Your task to perform on an android device: Clear all items from cart on walmart.com. Search for bose soundlink mini on walmart.com, select the first entry, and add it to the cart. Image 0: 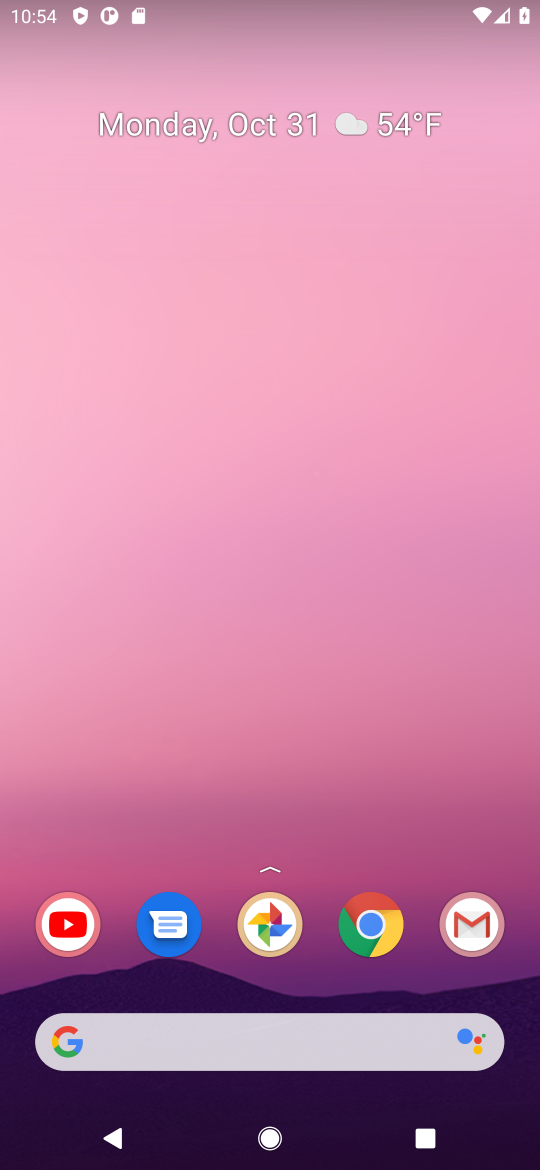
Step 0: press home button
Your task to perform on an android device: Clear all items from cart on walmart.com. Search for bose soundlink mini on walmart.com, select the first entry, and add it to the cart. Image 1: 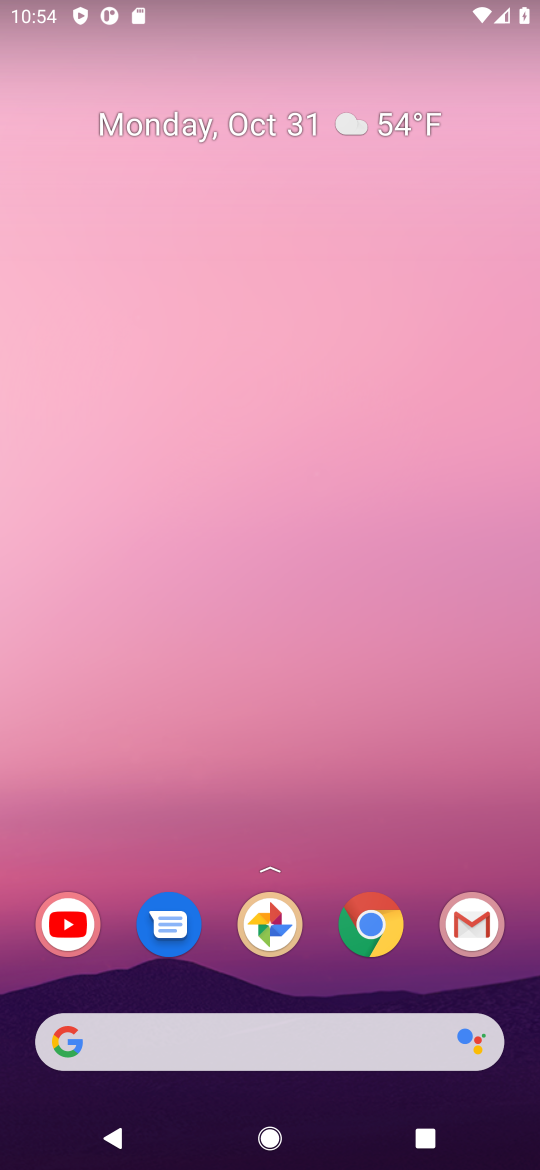
Step 1: click (379, 927)
Your task to perform on an android device: Clear all items from cart on walmart.com. Search for bose soundlink mini on walmart.com, select the first entry, and add it to the cart. Image 2: 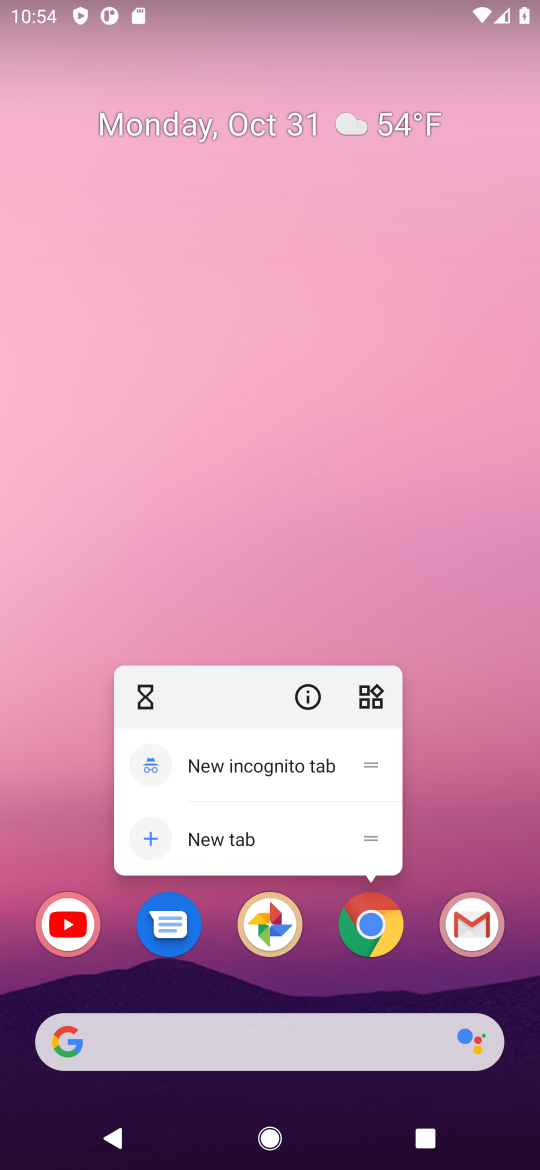
Step 2: click (224, 835)
Your task to perform on an android device: Clear all items from cart on walmart.com. Search for bose soundlink mini on walmart.com, select the first entry, and add it to the cart. Image 3: 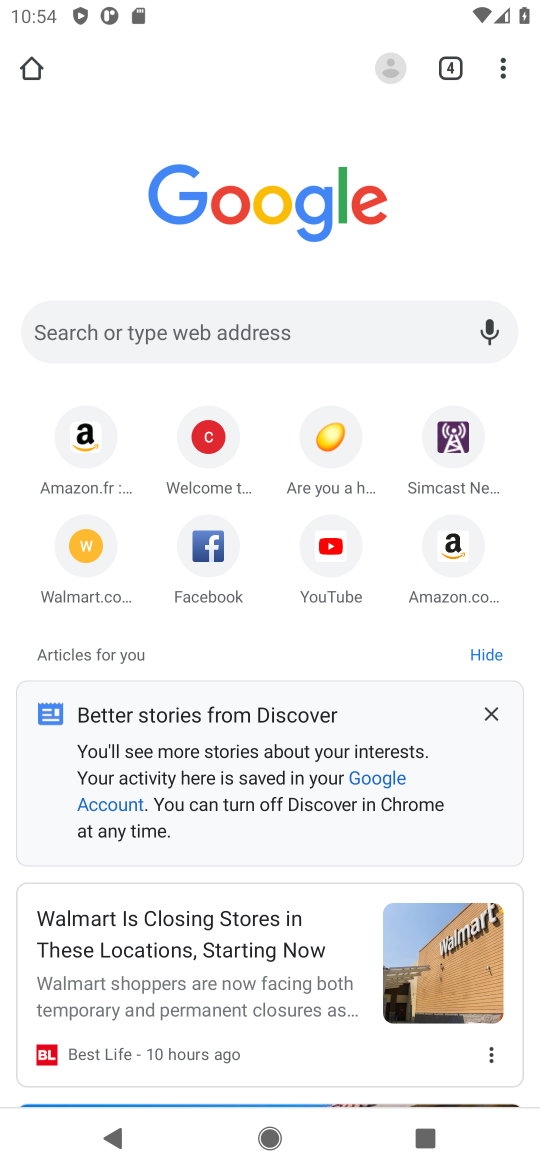
Step 3: click (260, 328)
Your task to perform on an android device: Clear all items from cart on walmart.com. Search for bose soundlink mini on walmart.com, select the first entry, and add it to the cart. Image 4: 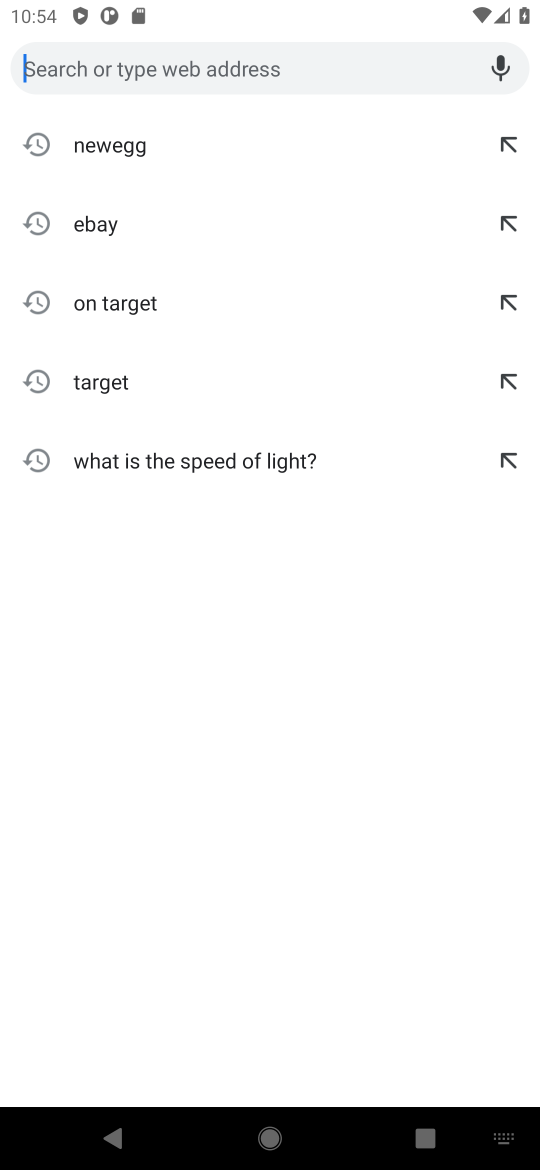
Step 4: type "walmart.com"
Your task to perform on an android device: Clear all items from cart on walmart.com. Search for bose soundlink mini on walmart.com, select the first entry, and add it to the cart. Image 5: 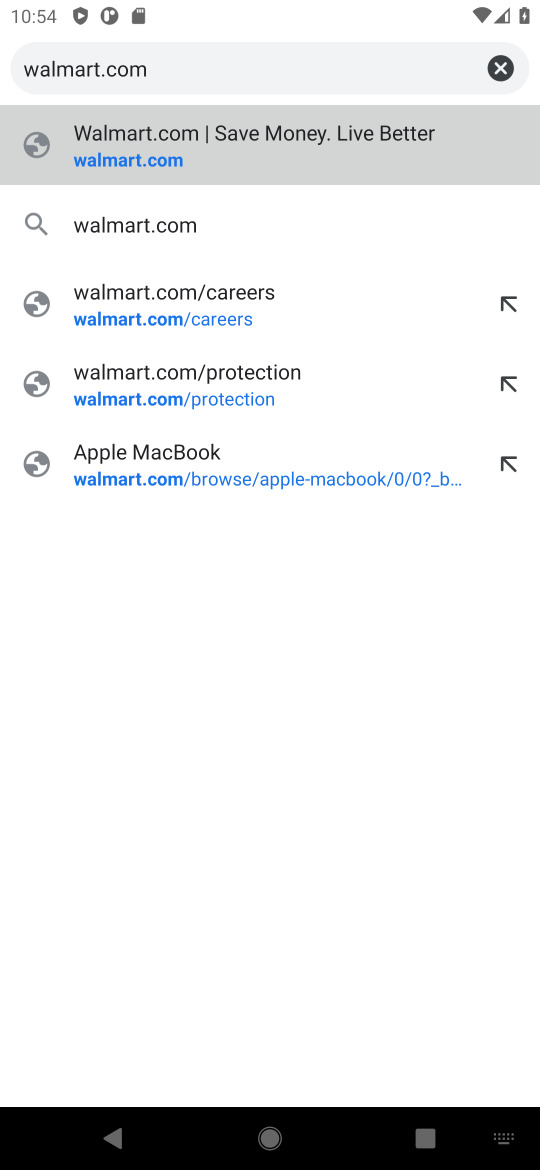
Step 5: type ""
Your task to perform on an android device: Clear all items from cart on walmart.com. Search for bose soundlink mini on walmart.com, select the first entry, and add it to the cart. Image 6: 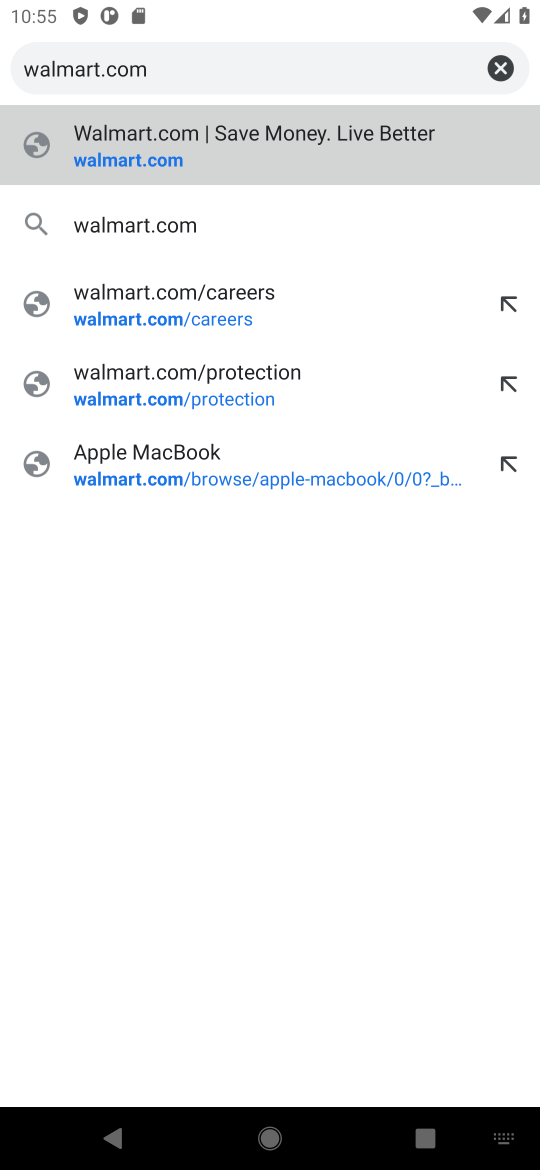
Step 6: click (193, 163)
Your task to perform on an android device: Clear all items from cart on walmart.com. Search for bose soundlink mini on walmart.com, select the first entry, and add it to the cart. Image 7: 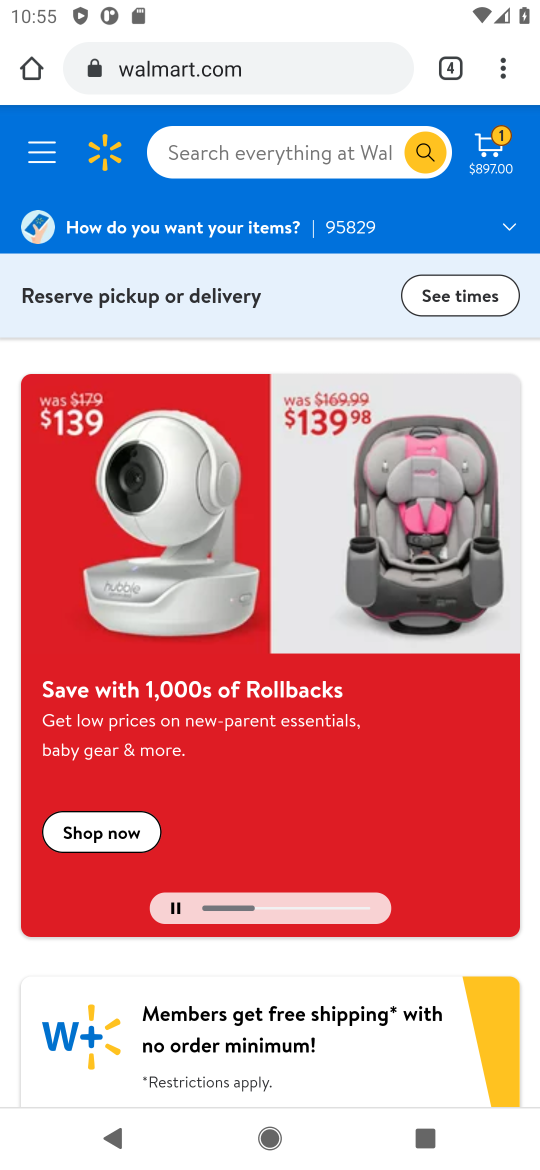
Step 7: click (235, 157)
Your task to perform on an android device: Clear all items from cart on walmart.com. Search for bose soundlink mini on walmart.com, select the first entry, and add it to the cart. Image 8: 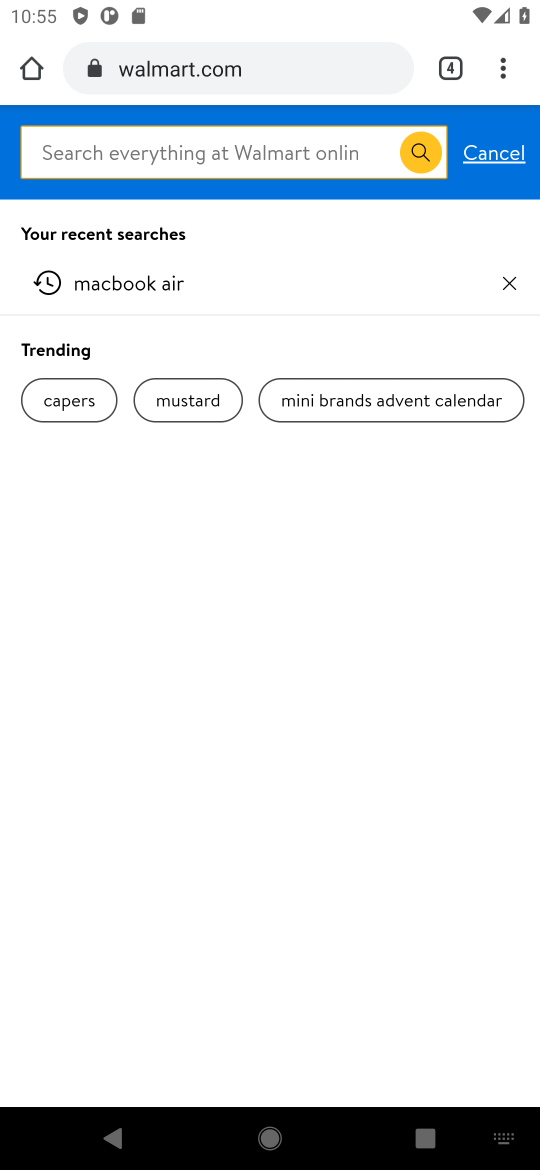
Step 8: type "bose soundlink mini"
Your task to perform on an android device: Clear all items from cart on walmart.com. Search for bose soundlink mini on walmart.com, select the first entry, and add it to the cart. Image 9: 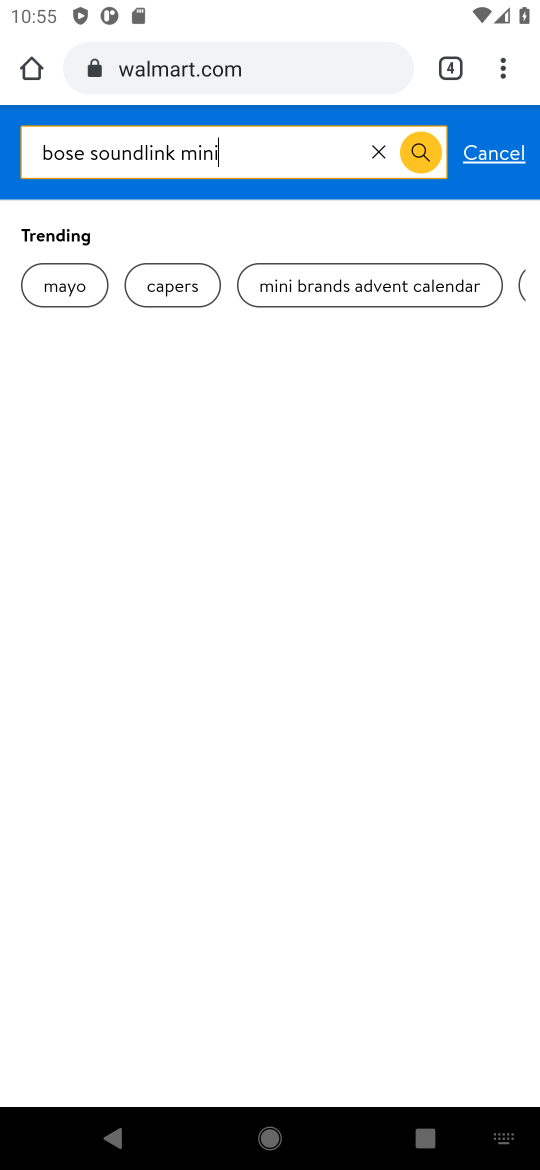
Step 9: type ""
Your task to perform on an android device: Clear all items from cart on walmart.com. Search for bose soundlink mini on walmart.com, select the first entry, and add it to the cart. Image 10: 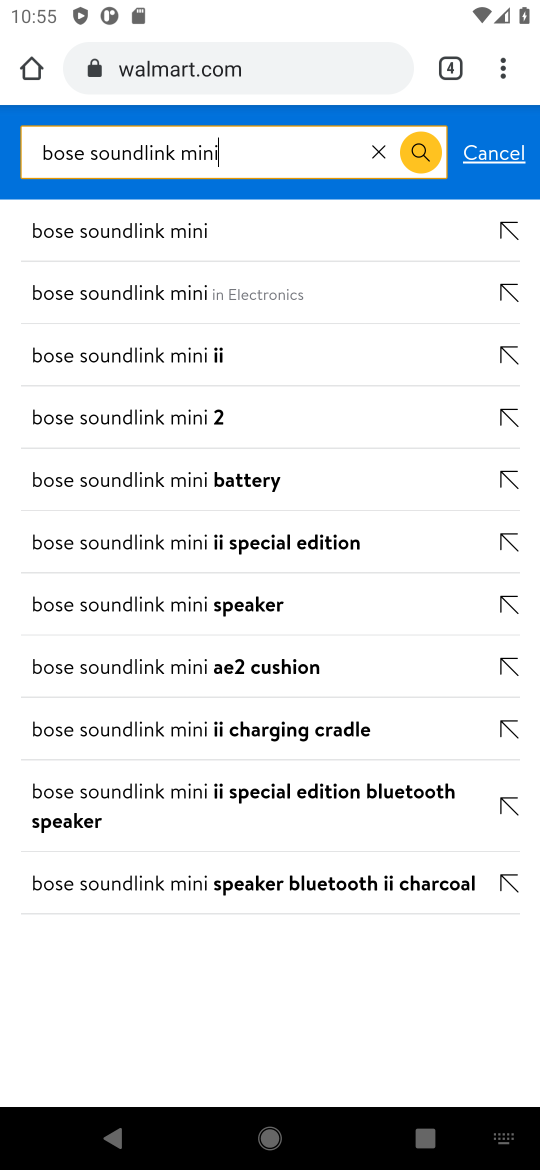
Step 10: click (157, 244)
Your task to perform on an android device: Clear all items from cart on walmart.com. Search for bose soundlink mini on walmart.com, select the first entry, and add it to the cart. Image 11: 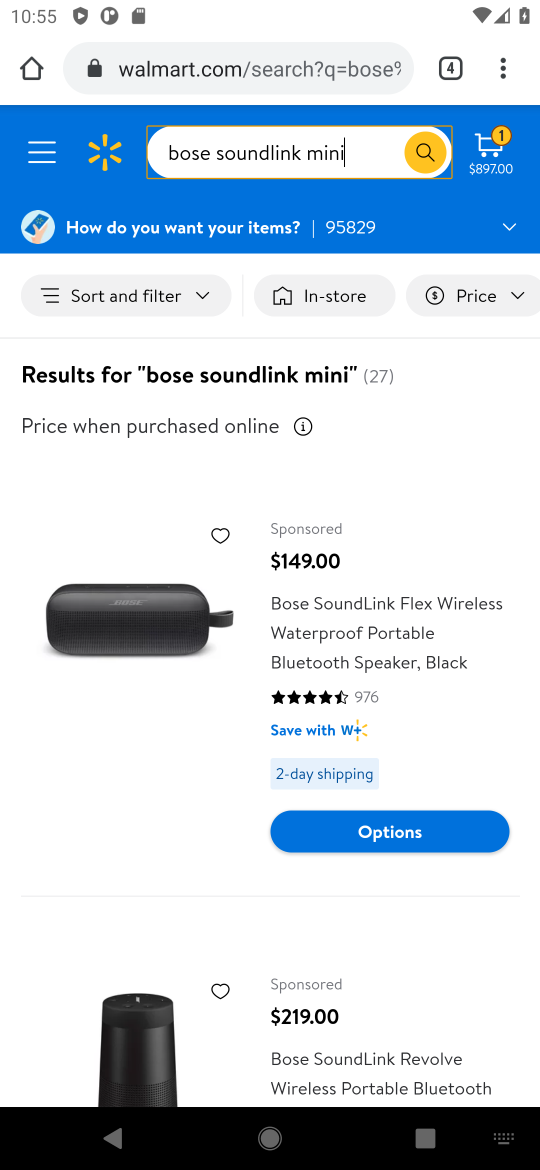
Step 11: click (160, 629)
Your task to perform on an android device: Clear all items from cart on walmart.com. Search for bose soundlink mini on walmart.com, select the first entry, and add it to the cart. Image 12: 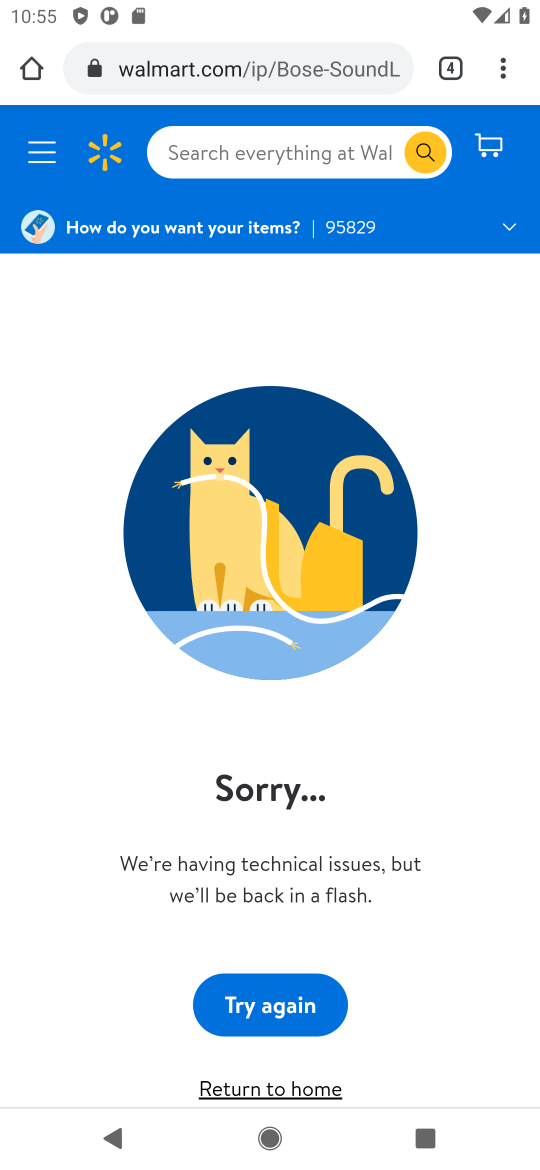
Step 12: press back button
Your task to perform on an android device: Clear all items from cart on walmart.com. Search for bose soundlink mini on walmart.com, select the first entry, and add it to the cart. Image 13: 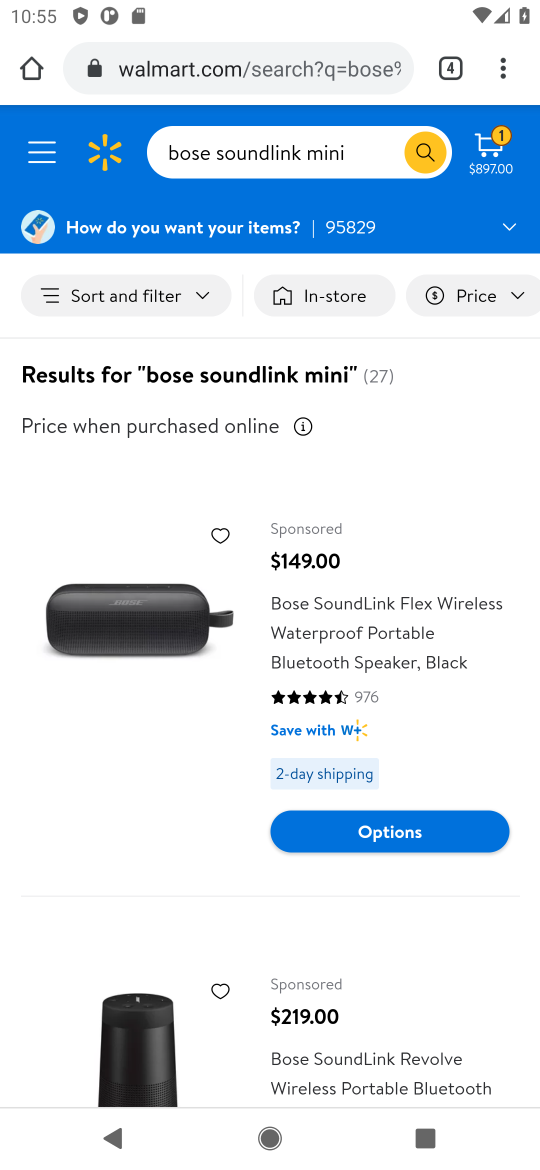
Step 13: drag from (198, 968) to (202, 546)
Your task to perform on an android device: Clear all items from cart on walmart.com. Search for bose soundlink mini on walmart.com, select the first entry, and add it to the cart. Image 14: 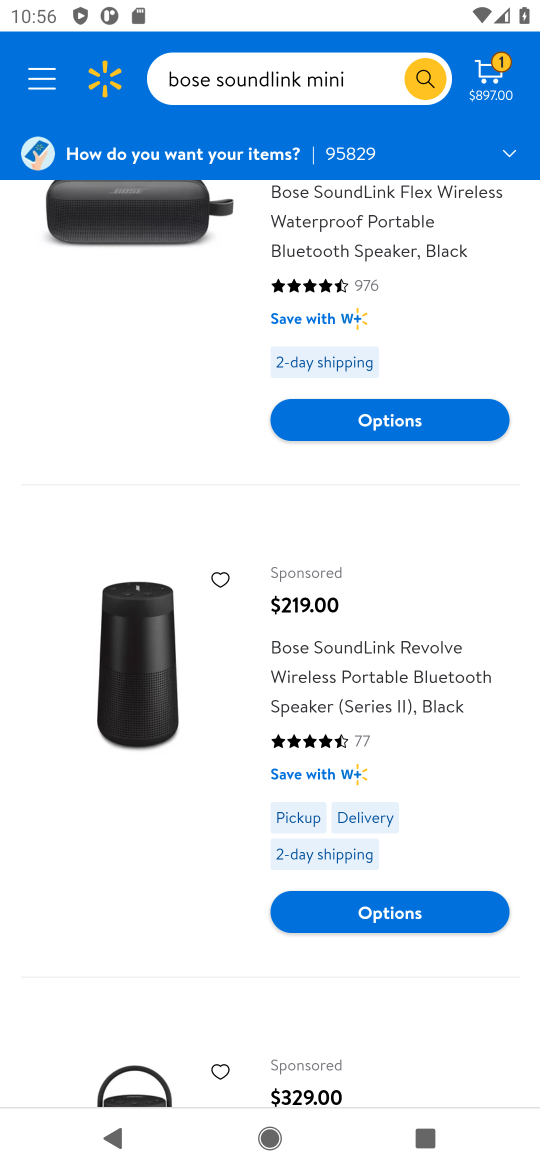
Step 14: click (130, 648)
Your task to perform on an android device: Clear all items from cart on walmart.com. Search for bose soundlink mini on walmart.com, select the first entry, and add it to the cart. Image 15: 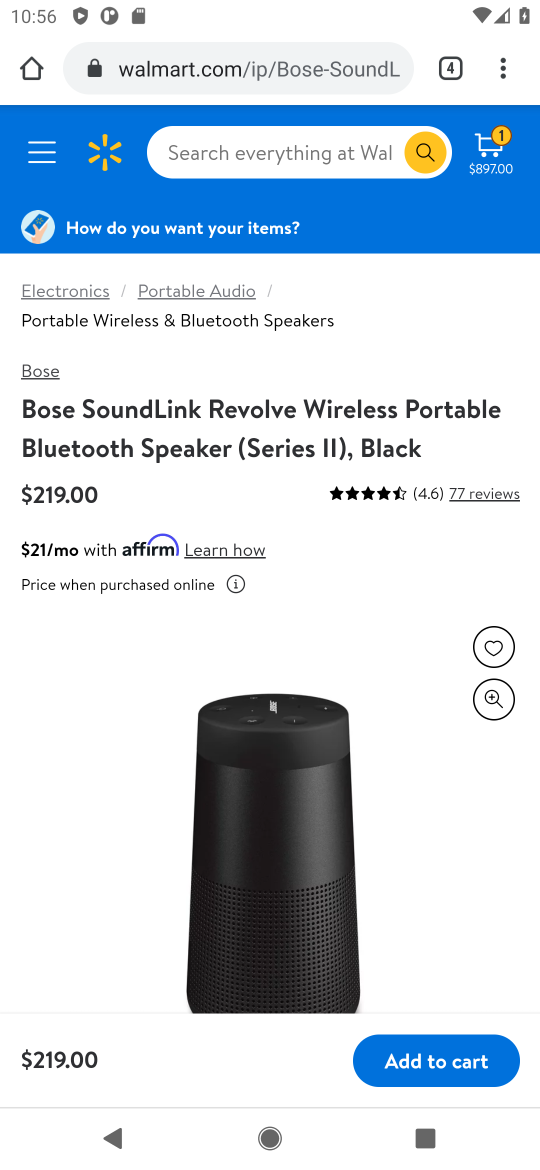
Step 15: drag from (472, 1075) to (423, 1126)
Your task to perform on an android device: Clear all items from cart on walmart.com. Search for bose soundlink mini on walmart.com, select the first entry, and add it to the cart. Image 16: 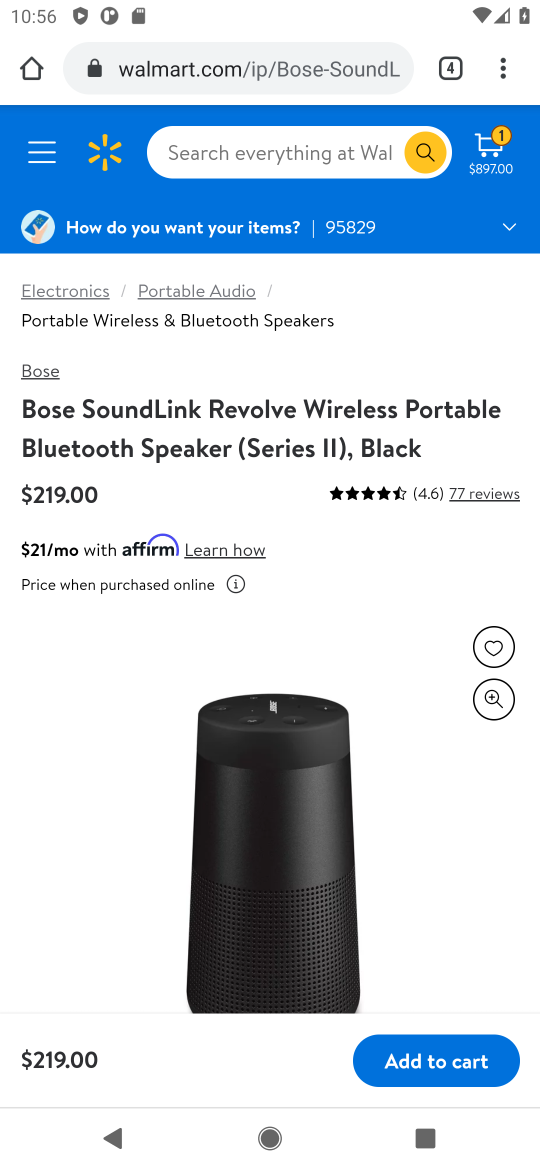
Step 16: click (454, 1067)
Your task to perform on an android device: Clear all items from cart on walmart.com. Search for bose soundlink mini on walmart.com, select the first entry, and add it to the cart. Image 17: 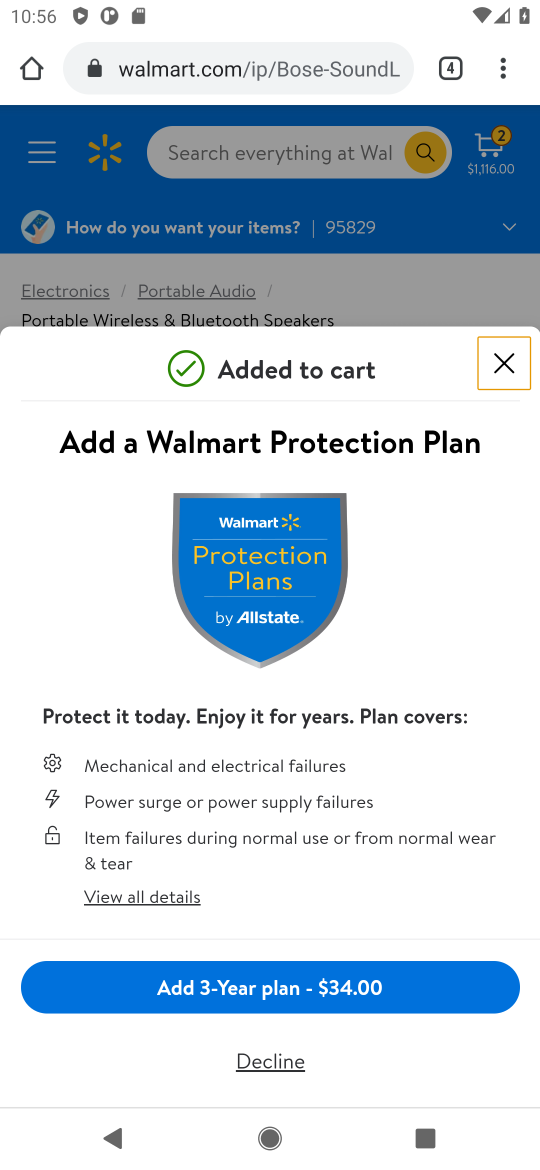
Step 17: click (501, 354)
Your task to perform on an android device: Clear all items from cart on walmart.com. Search for bose soundlink mini on walmart.com, select the first entry, and add it to the cart. Image 18: 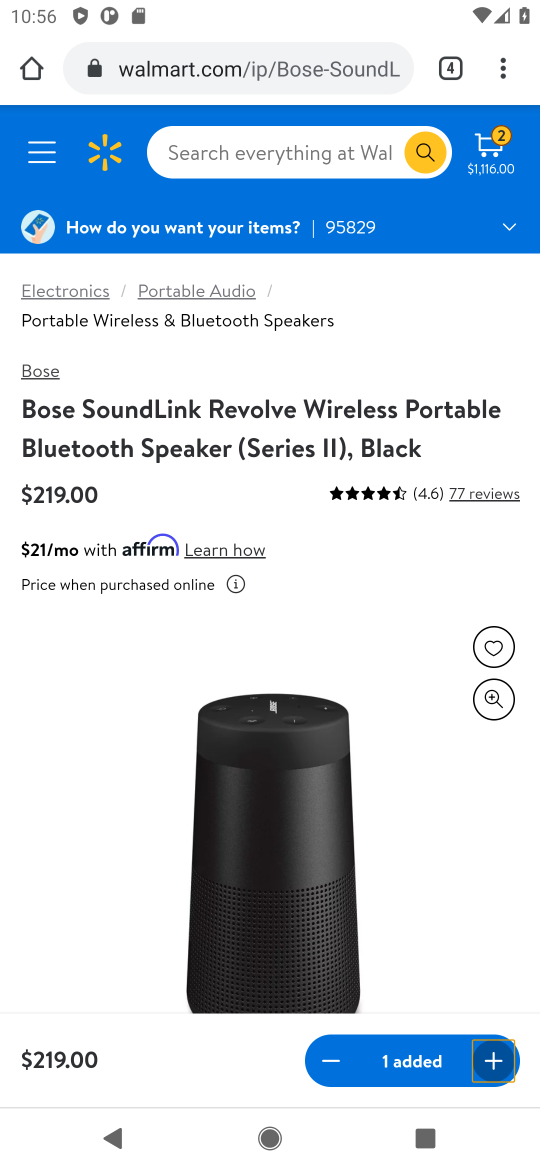
Step 18: click (487, 147)
Your task to perform on an android device: Clear all items from cart on walmart.com. Search for bose soundlink mini on walmart.com, select the first entry, and add it to the cart. Image 19: 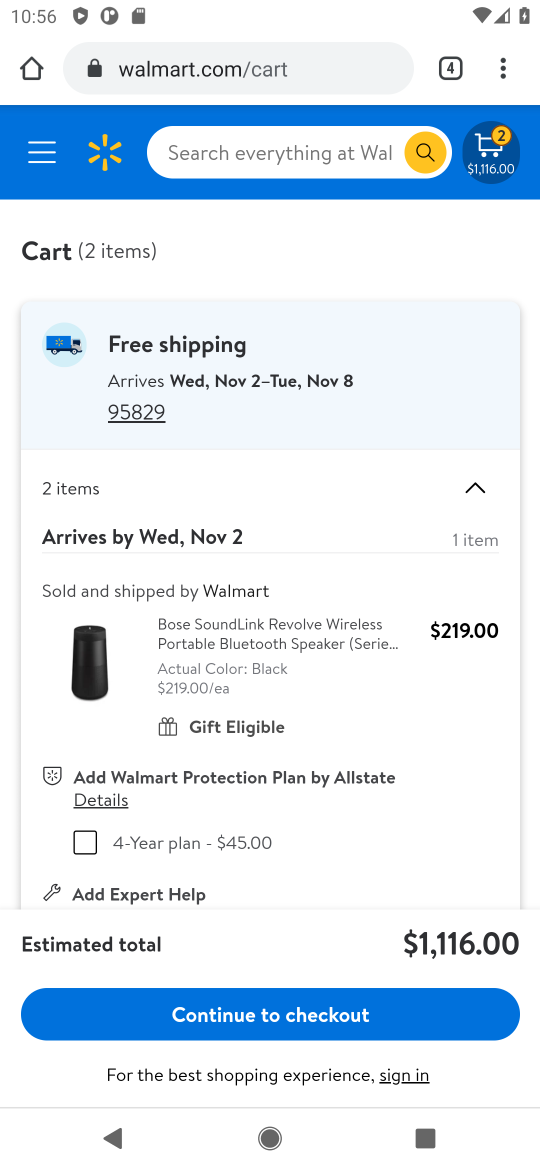
Step 19: click (287, 1011)
Your task to perform on an android device: Clear all items from cart on walmart.com. Search for bose soundlink mini on walmart.com, select the first entry, and add it to the cart. Image 20: 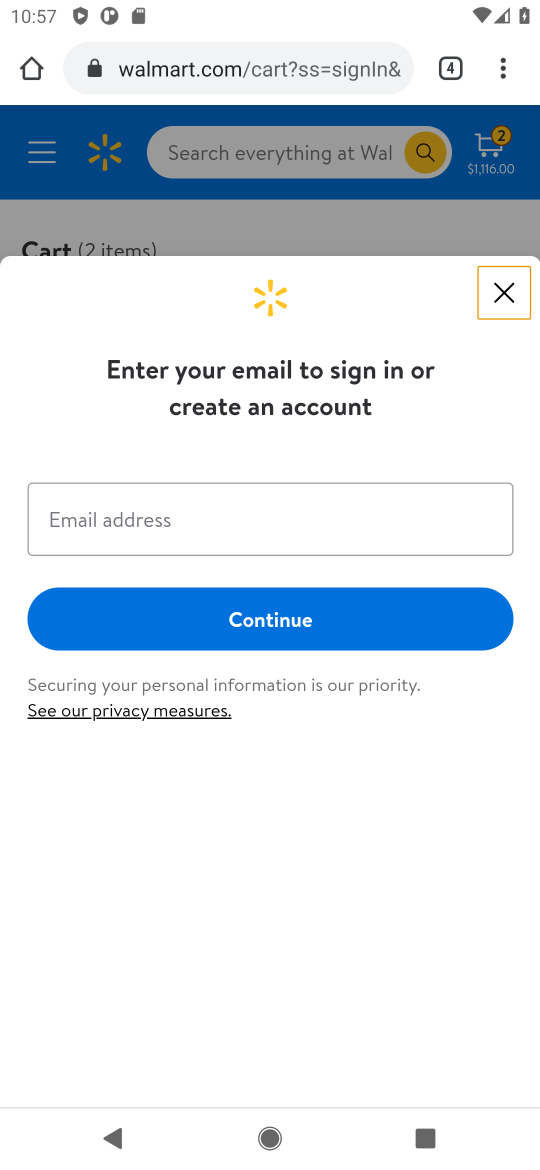
Step 20: task complete